Your task to perform on an android device: check battery use Image 0: 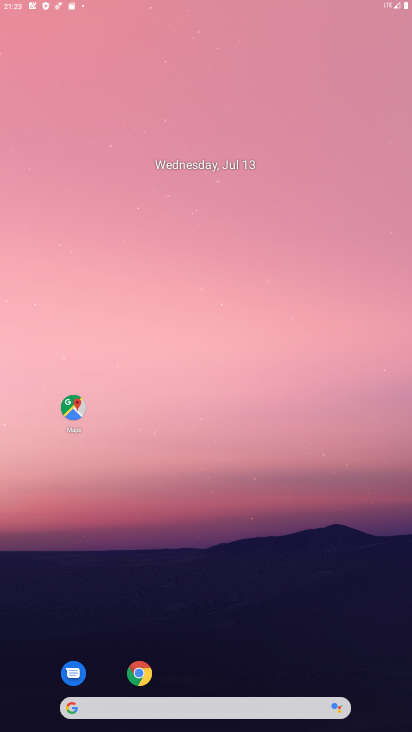
Step 0: click (242, 372)
Your task to perform on an android device: check battery use Image 1: 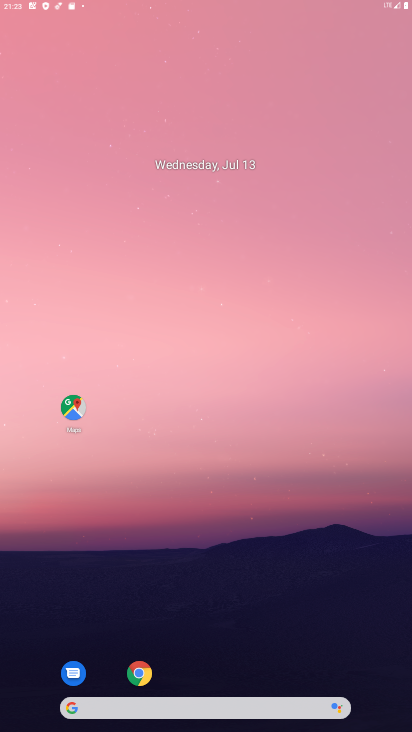
Step 1: drag from (248, 276) to (208, 645)
Your task to perform on an android device: check battery use Image 2: 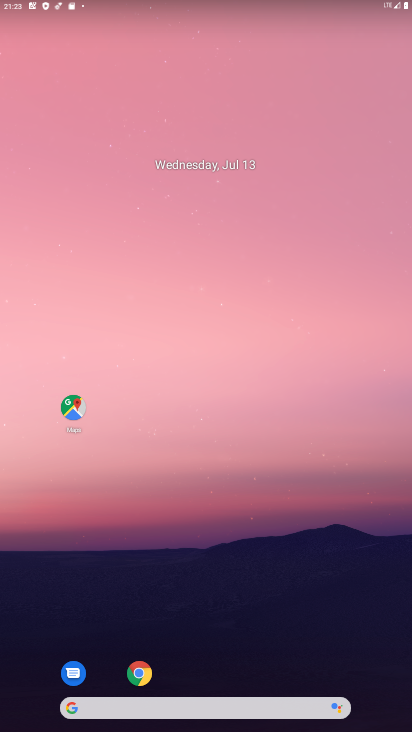
Step 2: drag from (191, 647) to (251, 98)
Your task to perform on an android device: check battery use Image 3: 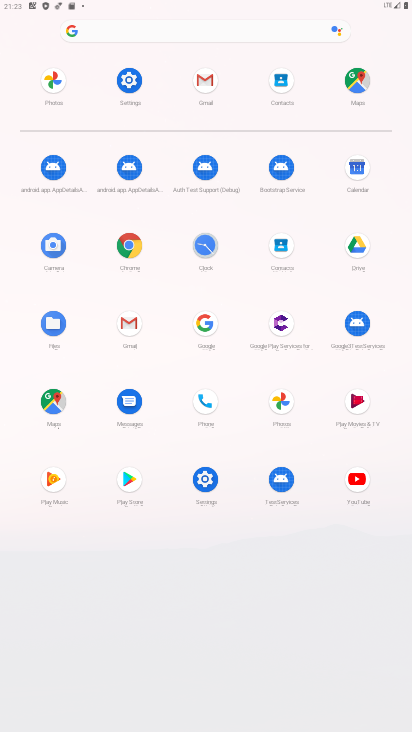
Step 3: click (201, 482)
Your task to perform on an android device: check battery use Image 4: 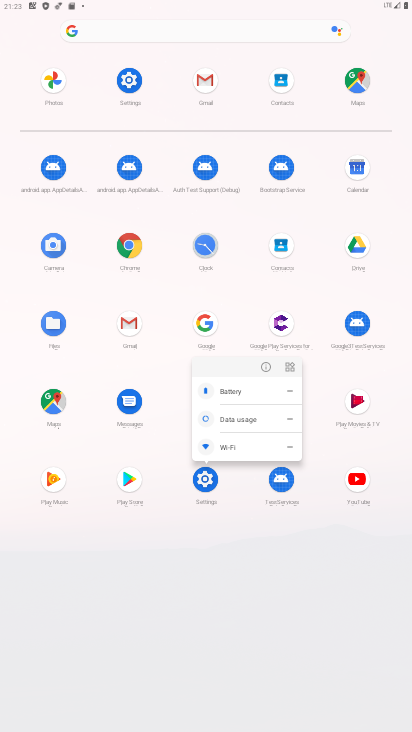
Step 4: click (264, 367)
Your task to perform on an android device: check battery use Image 5: 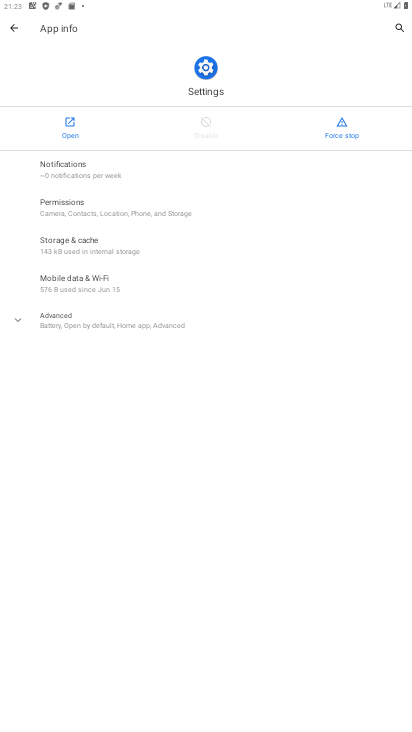
Step 5: click (71, 123)
Your task to perform on an android device: check battery use Image 6: 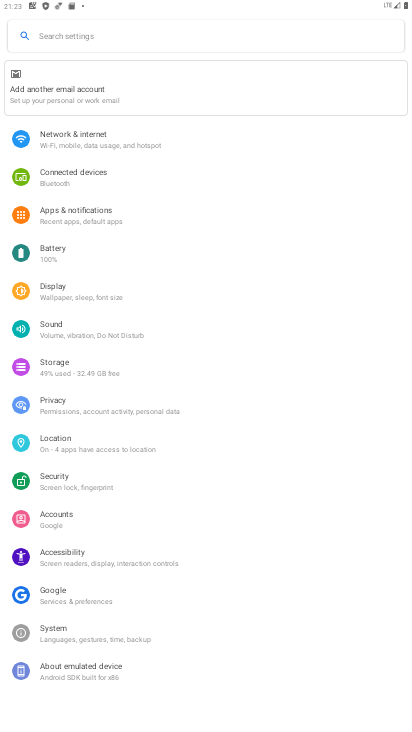
Step 6: click (68, 250)
Your task to perform on an android device: check battery use Image 7: 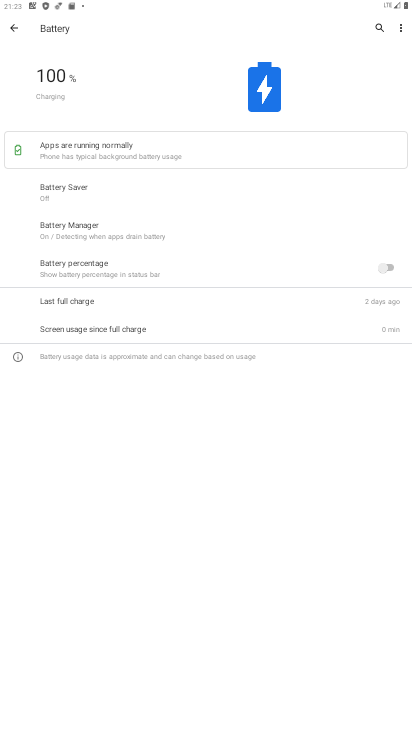
Step 7: click (398, 22)
Your task to perform on an android device: check battery use Image 8: 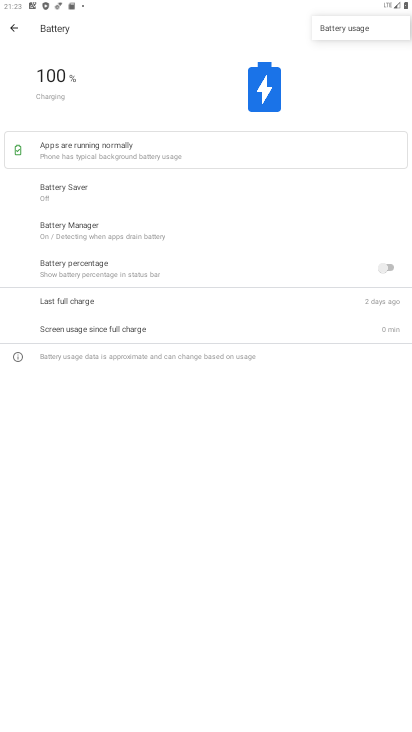
Step 8: click (334, 28)
Your task to perform on an android device: check battery use Image 9: 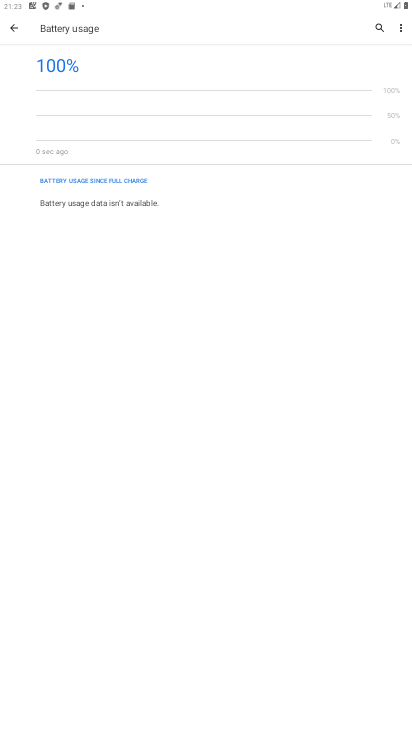
Step 9: drag from (140, 362) to (180, 158)
Your task to perform on an android device: check battery use Image 10: 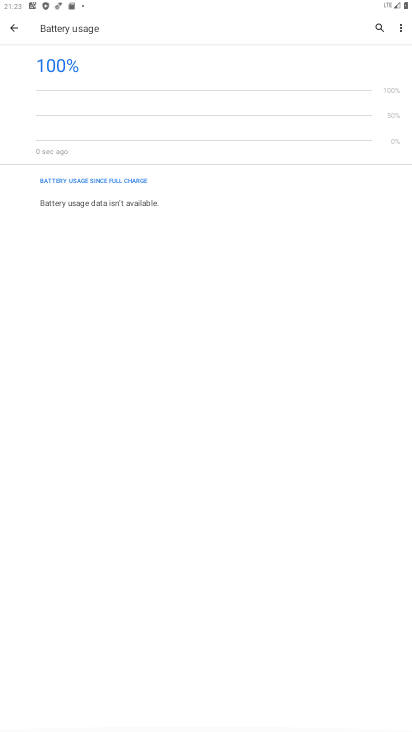
Step 10: drag from (187, 67) to (176, 280)
Your task to perform on an android device: check battery use Image 11: 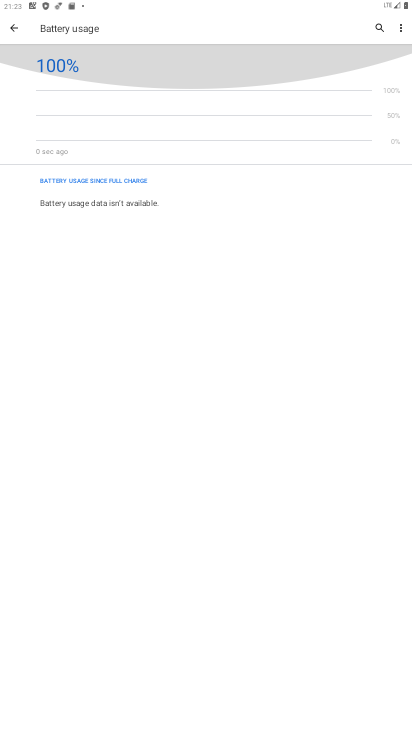
Step 11: click (153, 268)
Your task to perform on an android device: check battery use Image 12: 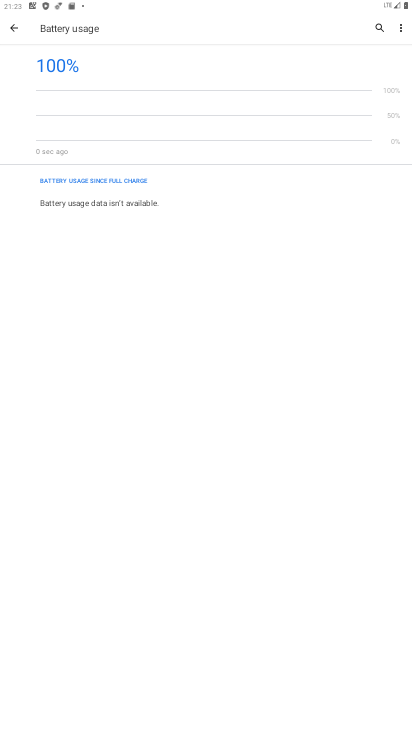
Step 12: click (146, 72)
Your task to perform on an android device: check battery use Image 13: 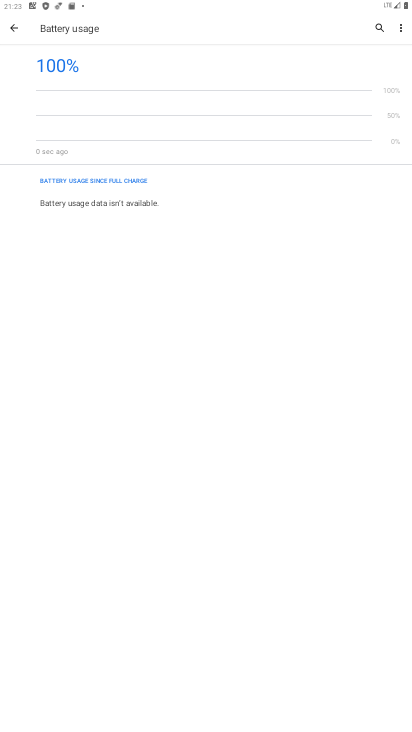
Step 13: click (101, 100)
Your task to perform on an android device: check battery use Image 14: 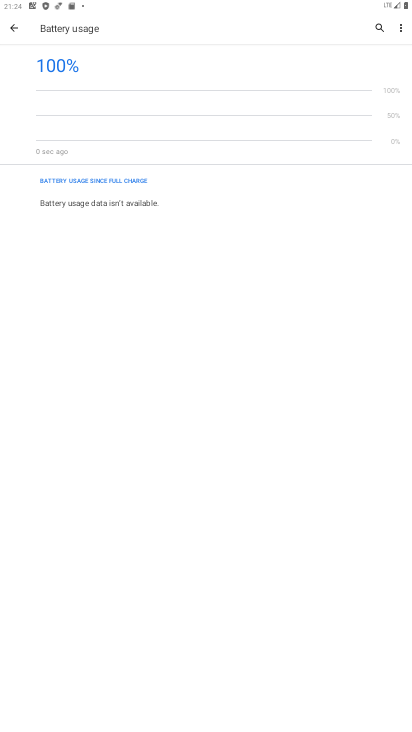
Step 14: click (74, 125)
Your task to perform on an android device: check battery use Image 15: 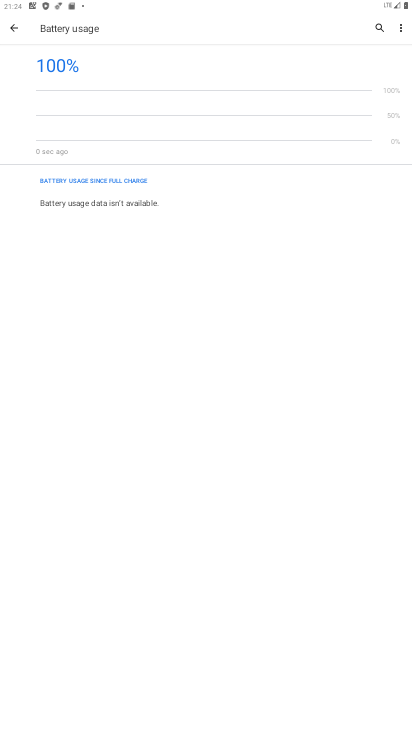
Step 15: click (73, 149)
Your task to perform on an android device: check battery use Image 16: 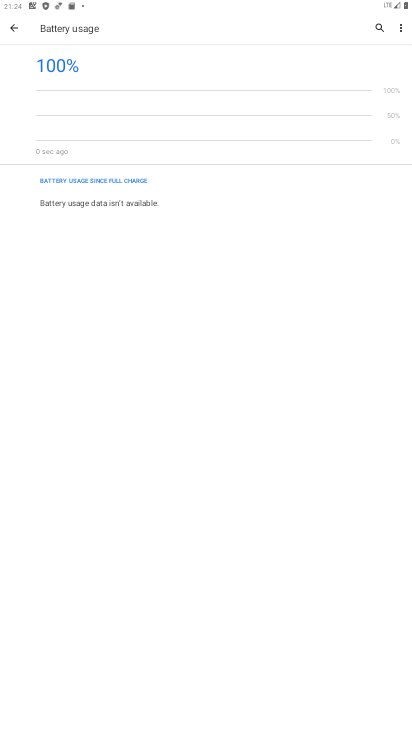
Step 16: task complete